Your task to perform on an android device: turn on wifi Image 0: 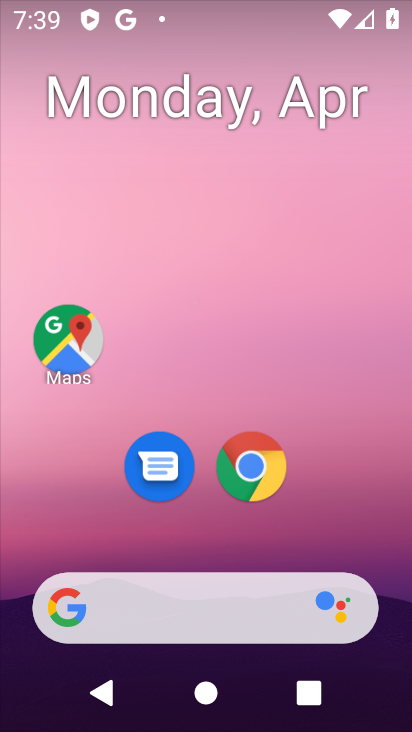
Step 0: drag from (214, 389) to (326, 120)
Your task to perform on an android device: turn on wifi Image 1: 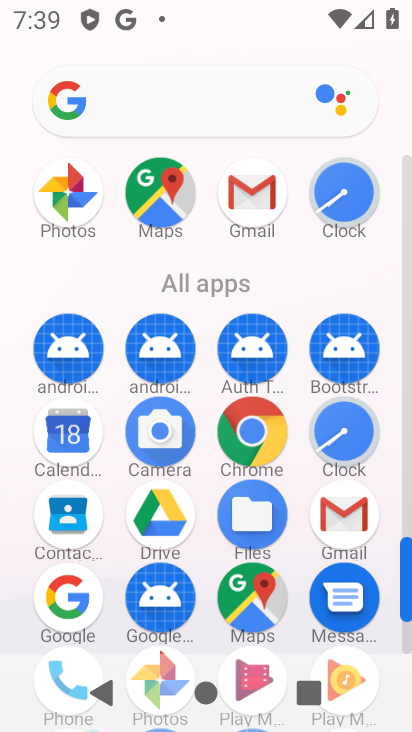
Step 1: drag from (207, 596) to (201, 187)
Your task to perform on an android device: turn on wifi Image 2: 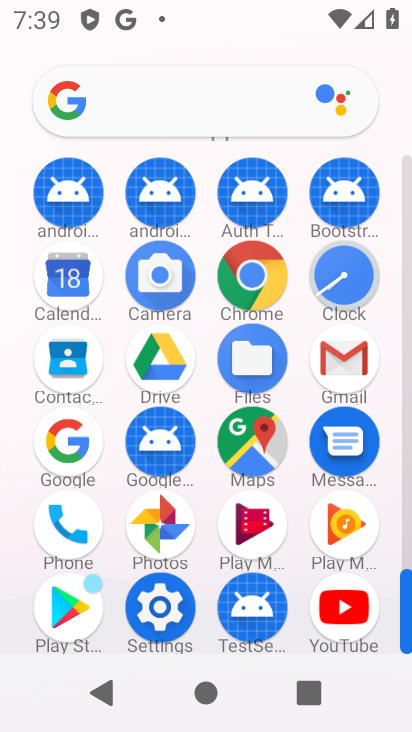
Step 2: click (179, 605)
Your task to perform on an android device: turn on wifi Image 3: 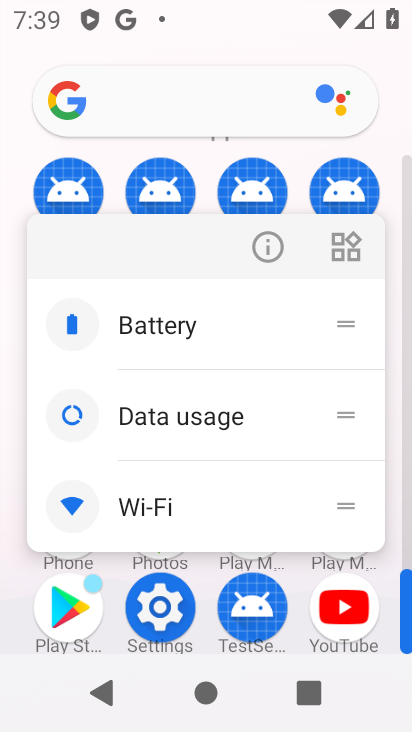
Step 3: click (282, 254)
Your task to perform on an android device: turn on wifi Image 4: 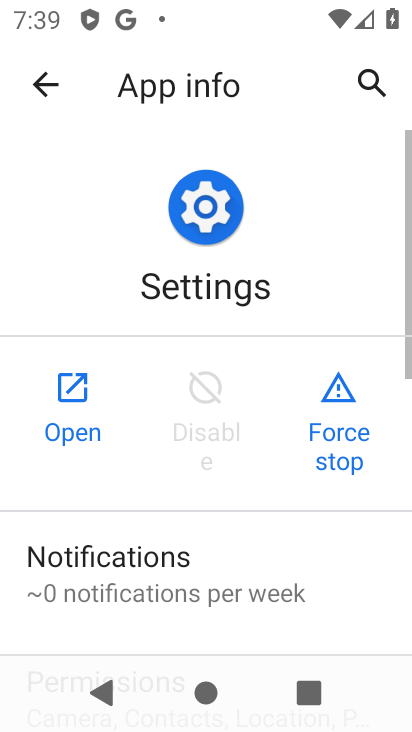
Step 4: click (65, 426)
Your task to perform on an android device: turn on wifi Image 5: 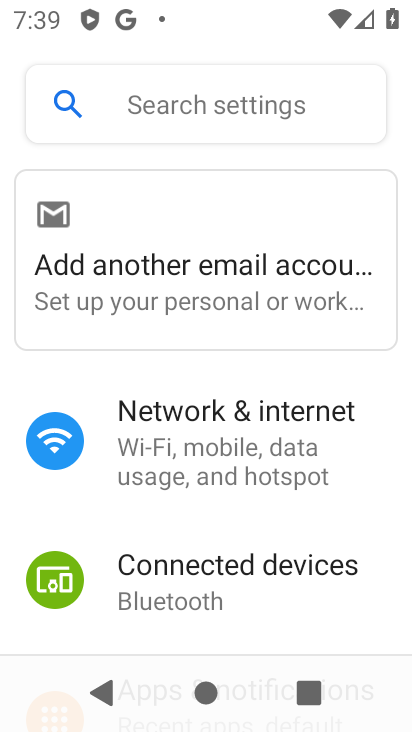
Step 5: drag from (211, 480) to (272, 47)
Your task to perform on an android device: turn on wifi Image 6: 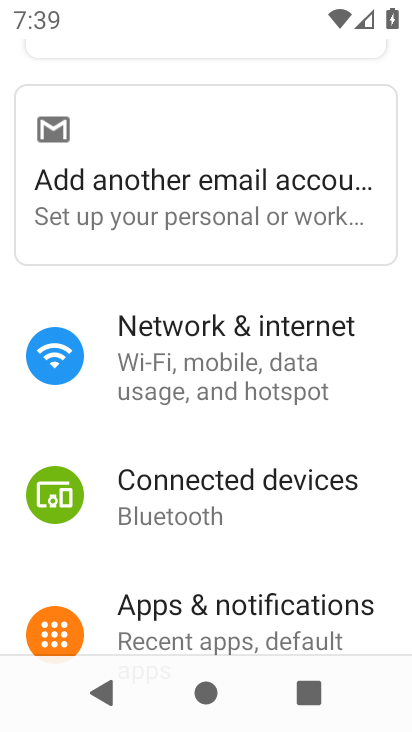
Step 6: click (252, 338)
Your task to perform on an android device: turn on wifi Image 7: 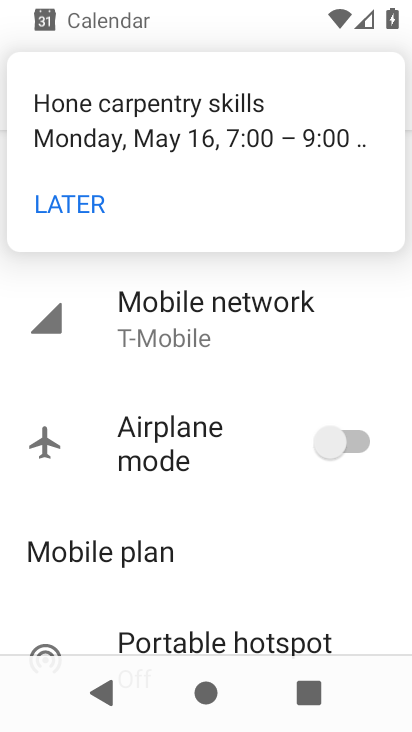
Step 7: click (212, 312)
Your task to perform on an android device: turn on wifi Image 8: 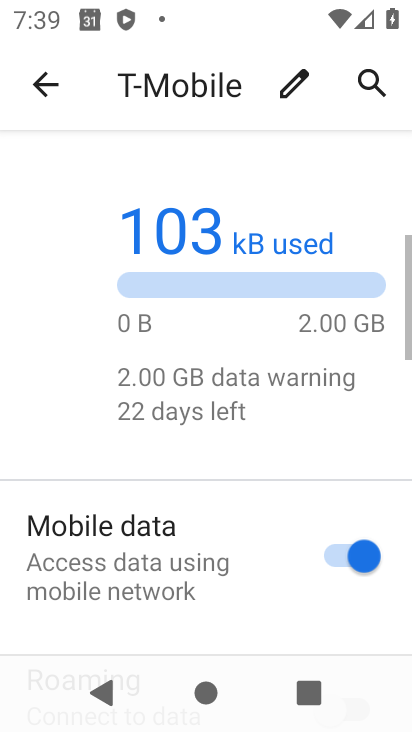
Step 8: click (42, 74)
Your task to perform on an android device: turn on wifi Image 9: 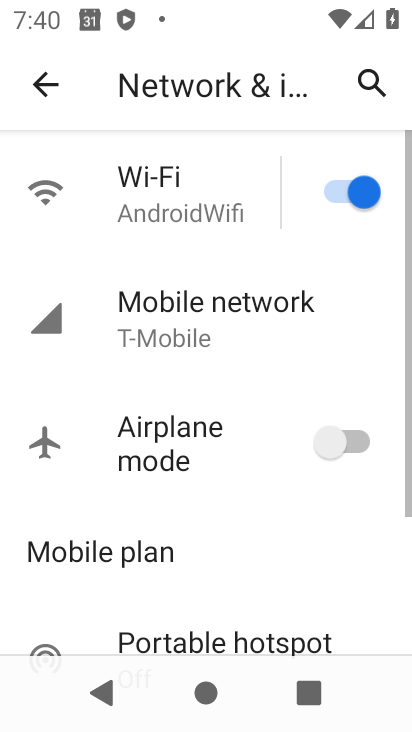
Step 9: click (231, 185)
Your task to perform on an android device: turn on wifi Image 10: 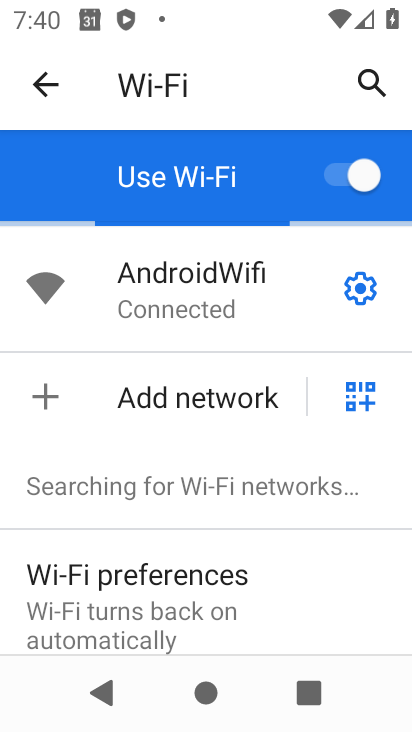
Step 10: task complete